Your task to perform on an android device: toggle priority inbox in the gmail app Image 0: 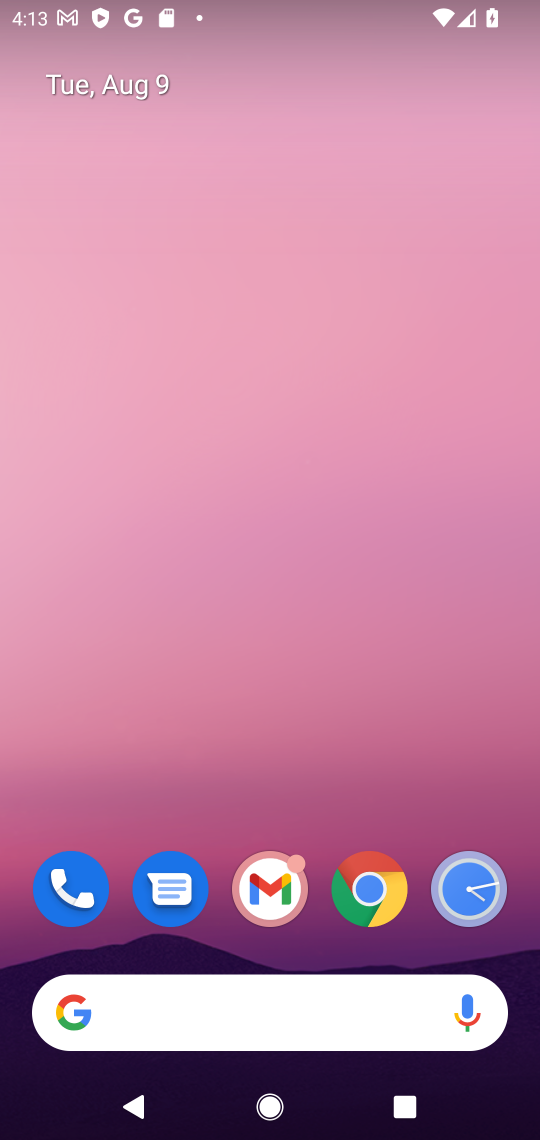
Step 0: drag from (328, 754) to (305, 1)
Your task to perform on an android device: toggle priority inbox in the gmail app Image 1: 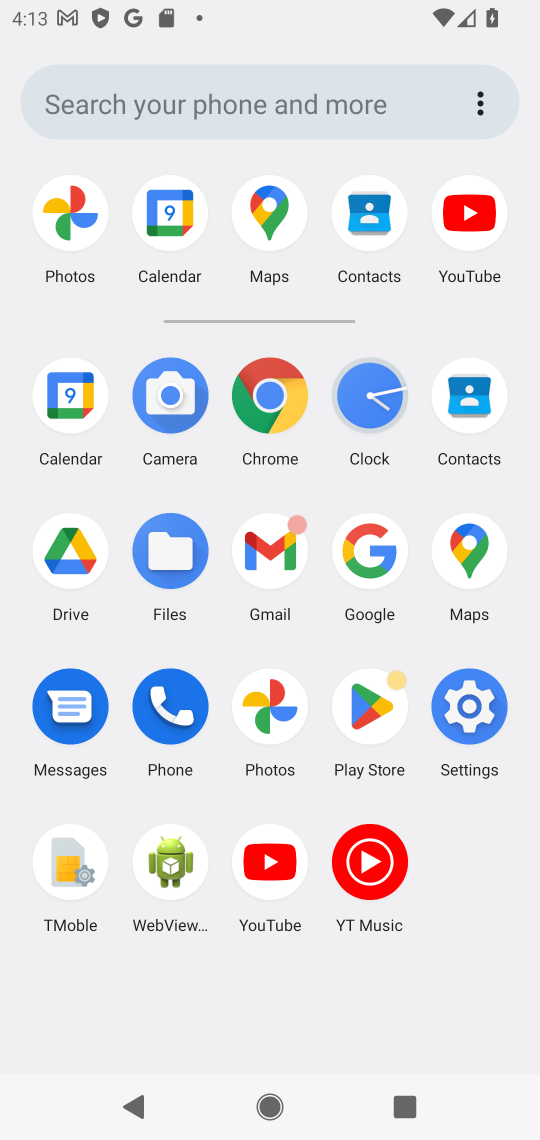
Step 1: click (272, 547)
Your task to perform on an android device: toggle priority inbox in the gmail app Image 2: 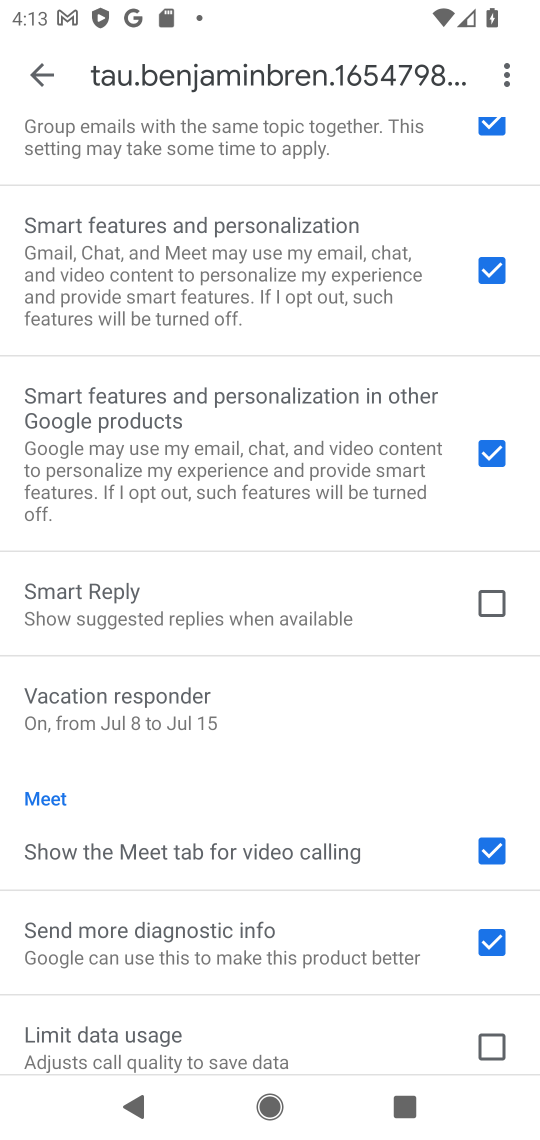
Step 2: click (46, 70)
Your task to perform on an android device: toggle priority inbox in the gmail app Image 3: 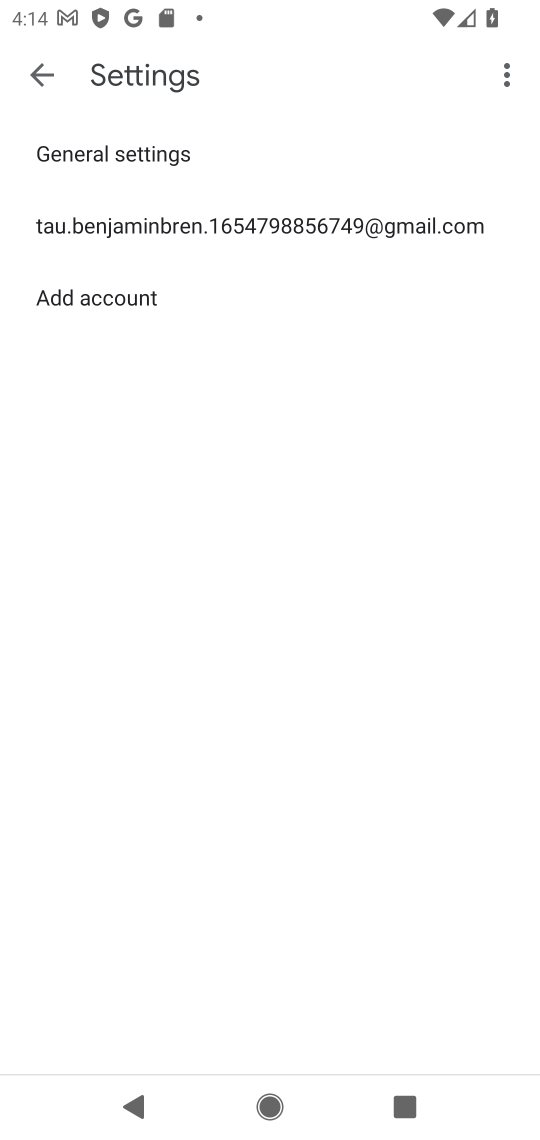
Step 3: click (149, 205)
Your task to perform on an android device: toggle priority inbox in the gmail app Image 4: 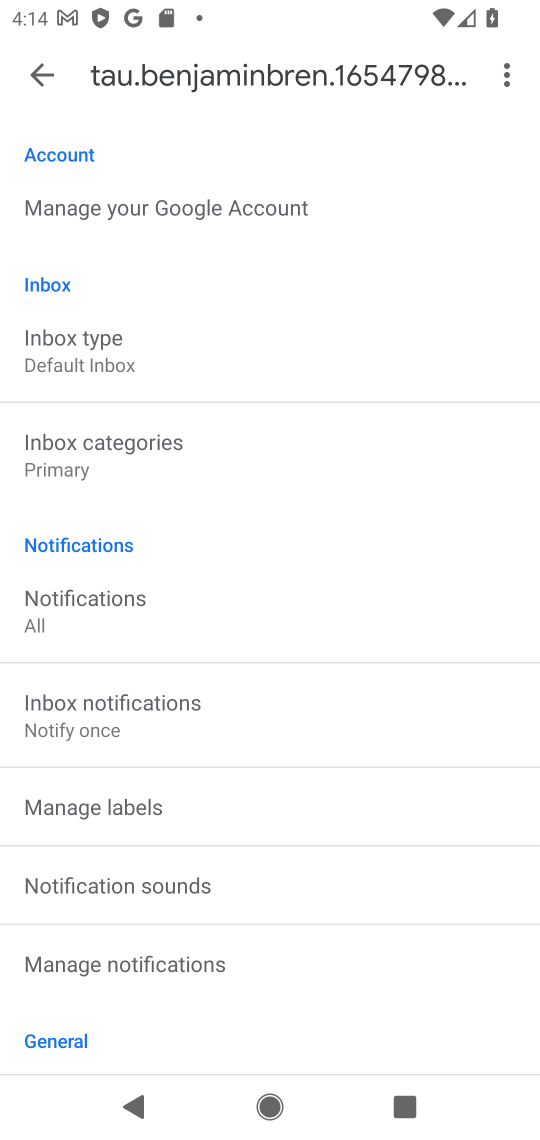
Step 4: click (125, 340)
Your task to perform on an android device: toggle priority inbox in the gmail app Image 5: 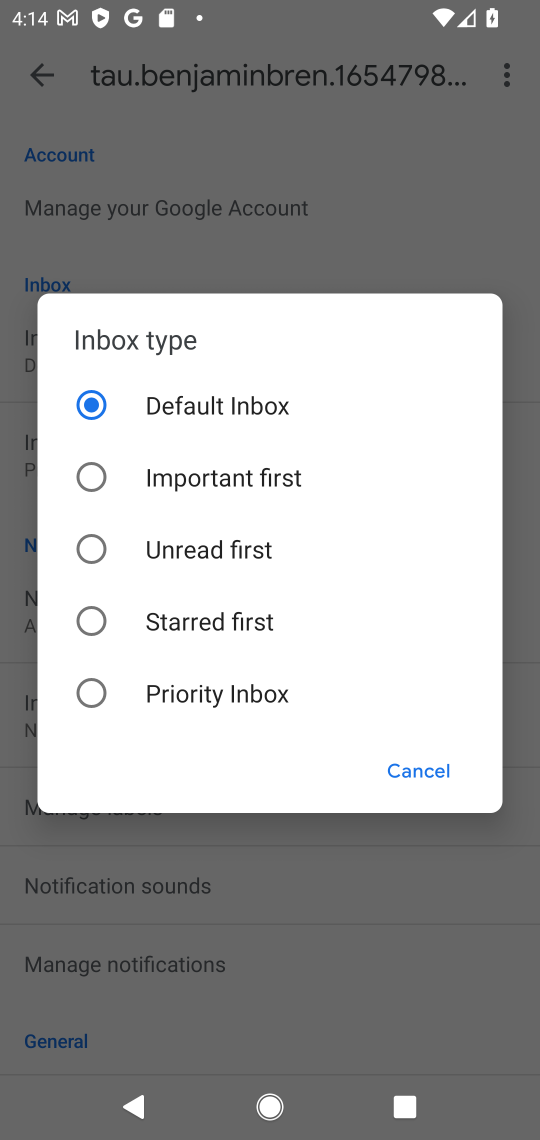
Step 5: click (103, 685)
Your task to perform on an android device: toggle priority inbox in the gmail app Image 6: 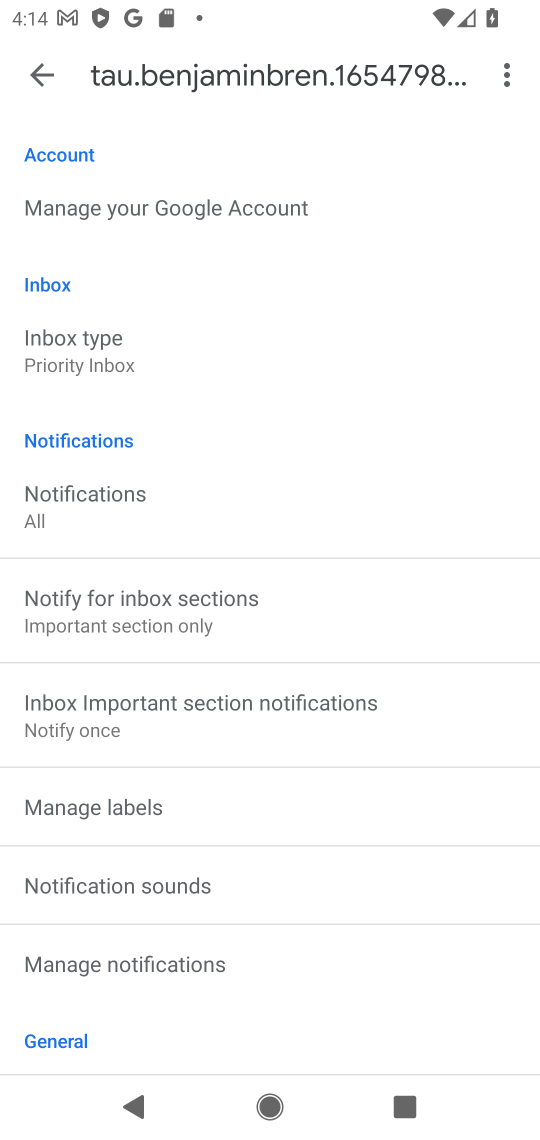
Step 6: task complete